Your task to perform on an android device: Open Google Maps Image 0: 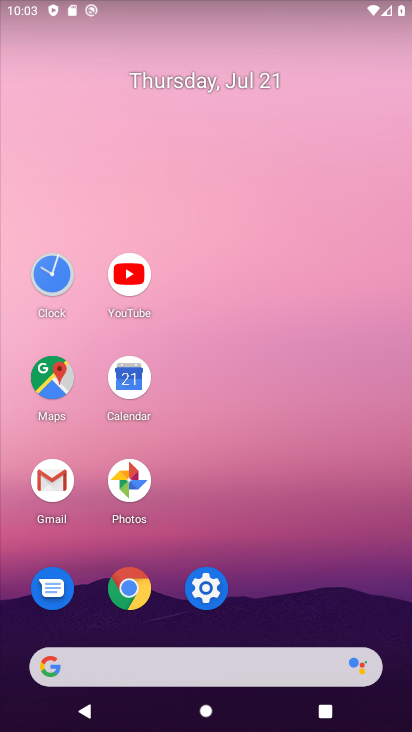
Step 0: click (54, 379)
Your task to perform on an android device: Open Google Maps Image 1: 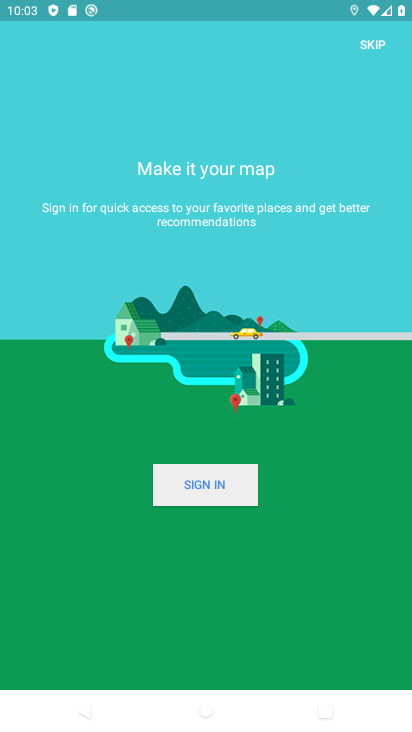
Step 1: click (376, 37)
Your task to perform on an android device: Open Google Maps Image 2: 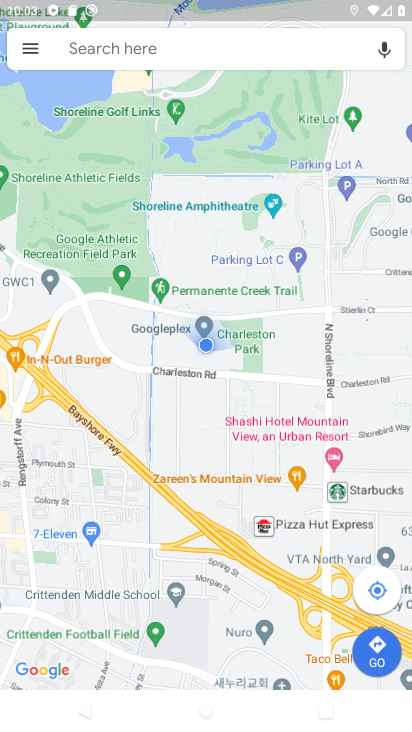
Step 2: task complete